Your task to perform on an android device: Open the Play Movies app and select the watchlist tab. Image 0: 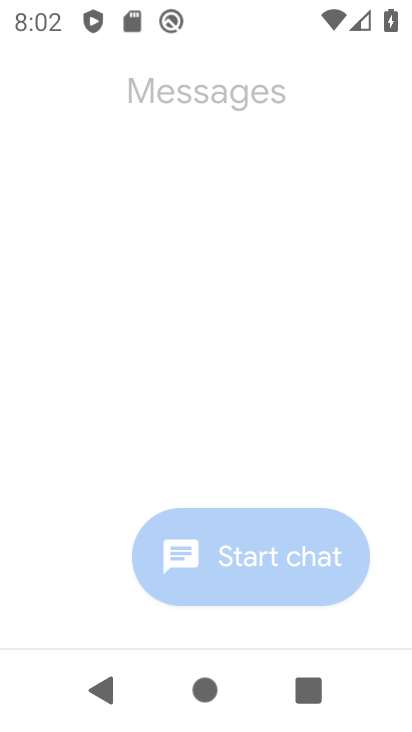
Step 0: click (348, 508)
Your task to perform on an android device: Open the Play Movies app and select the watchlist tab. Image 1: 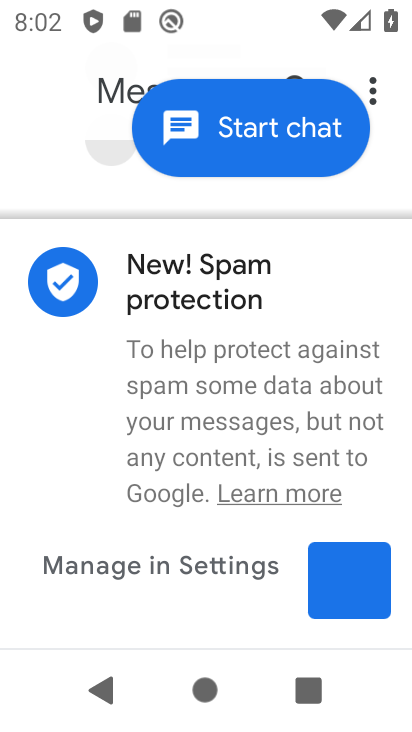
Step 1: press home button
Your task to perform on an android device: Open the Play Movies app and select the watchlist tab. Image 2: 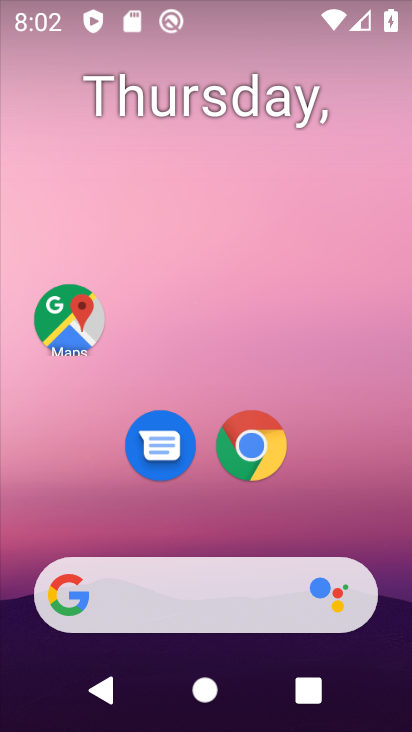
Step 2: drag from (388, 557) to (240, 10)
Your task to perform on an android device: Open the Play Movies app and select the watchlist tab. Image 3: 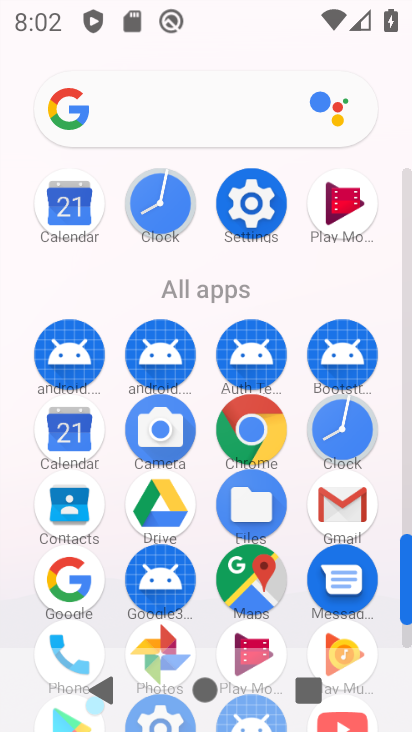
Step 3: click (249, 640)
Your task to perform on an android device: Open the Play Movies app and select the watchlist tab. Image 4: 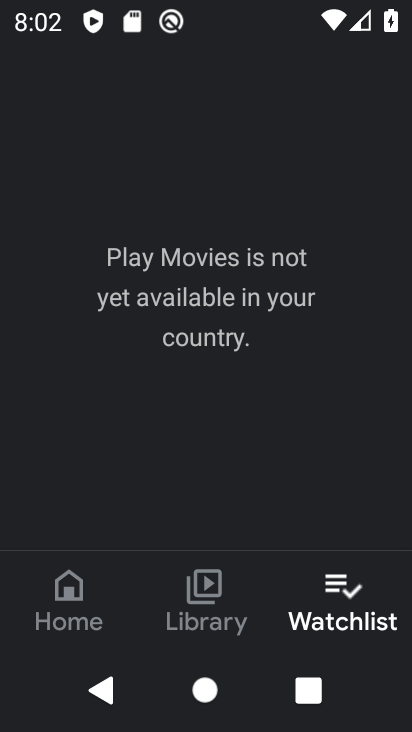
Step 4: click (319, 616)
Your task to perform on an android device: Open the Play Movies app and select the watchlist tab. Image 5: 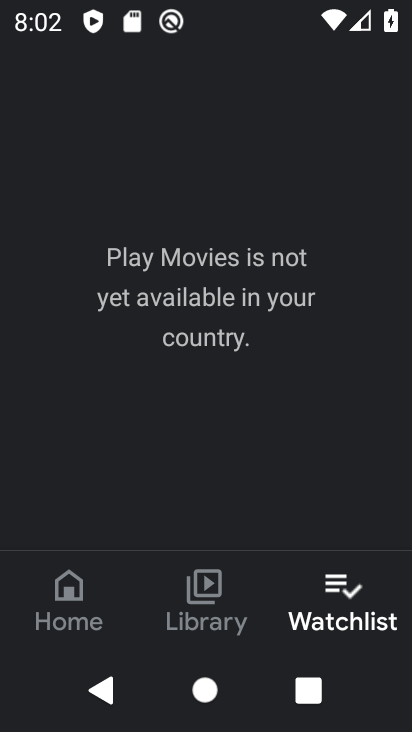
Step 5: task complete